Your task to perform on an android device: Show me the alarms in the clock app Image 0: 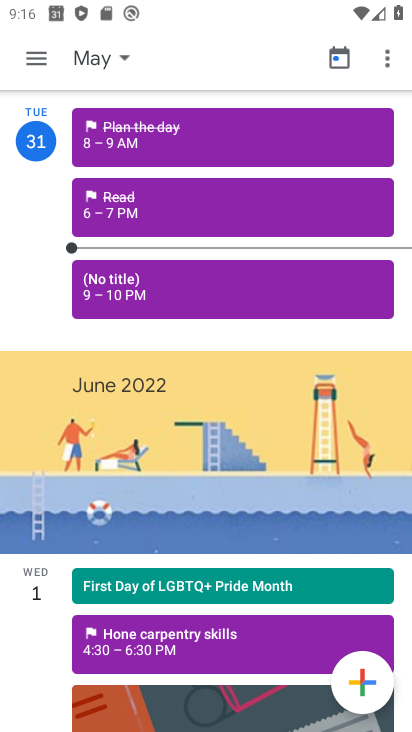
Step 0: press back button
Your task to perform on an android device: Show me the alarms in the clock app Image 1: 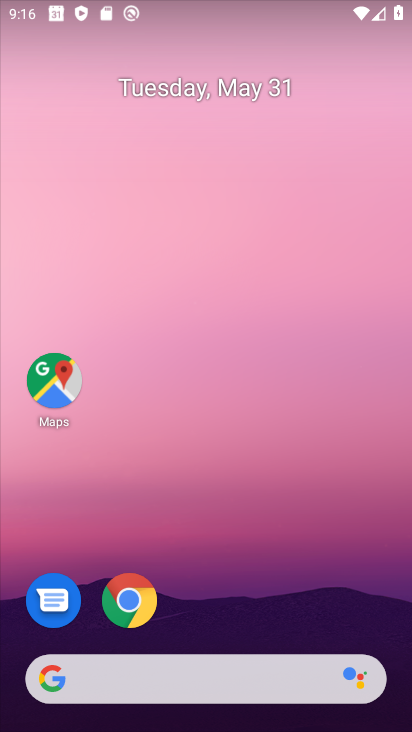
Step 1: drag from (254, 586) to (251, 84)
Your task to perform on an android device: Show me the alarms in the clock app Image 2: 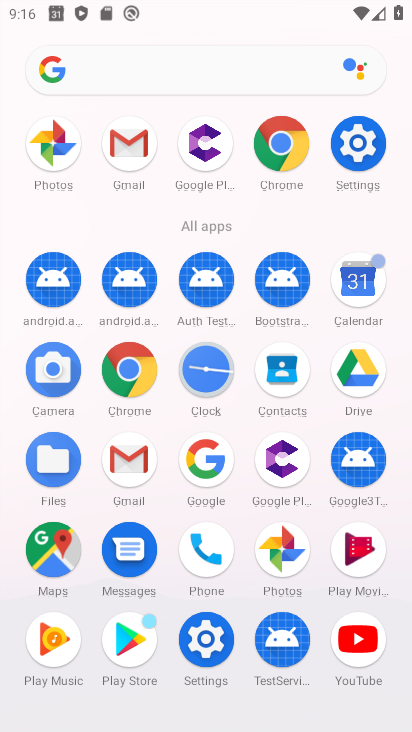
Step 2: click (194, 388)
Your task to perform on an android device: Show me the alarms in the clock app Image 3: 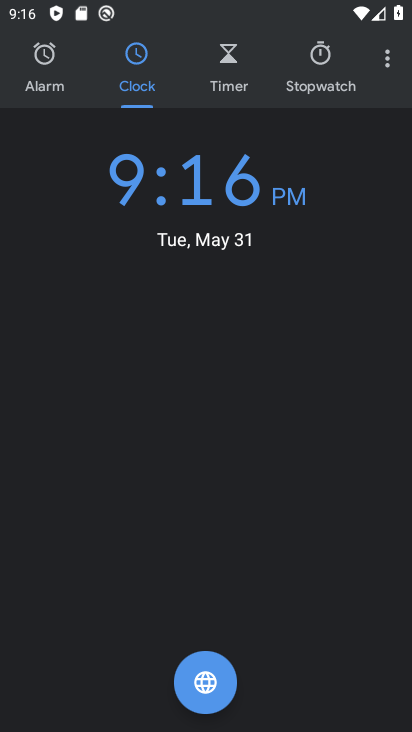
Step 3: click (46, 68)
Your task to perform on an android device: Show me the alarms in the clock app Image 4: 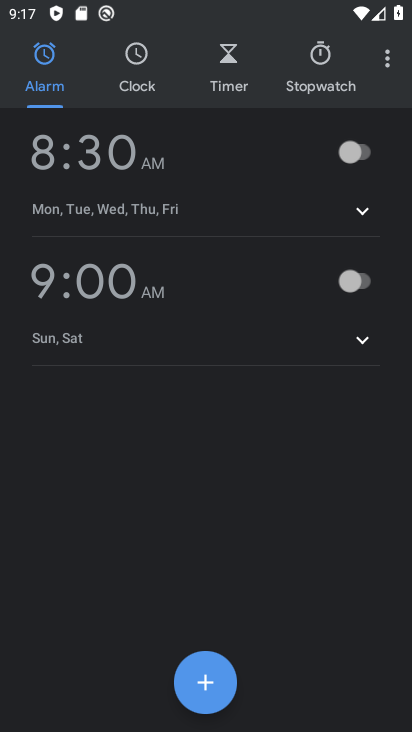
Step 4: task complete